Your task to perform on an android device: Open Chrome and go to the settings page Image 0: 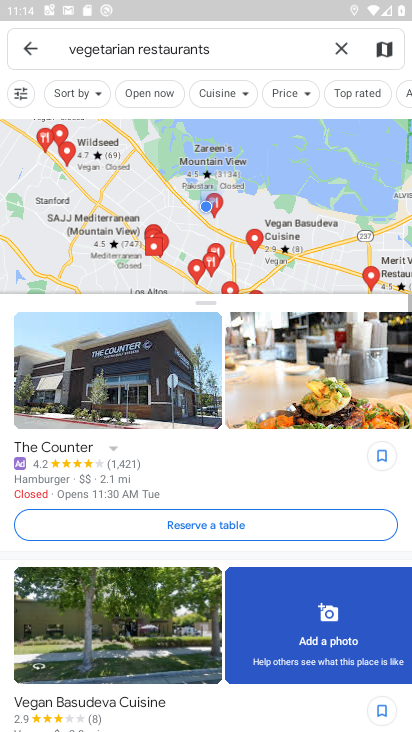
Step 0: press home button
Your task to perform on an android device: Open Chrome and go to the settings page Image 1: 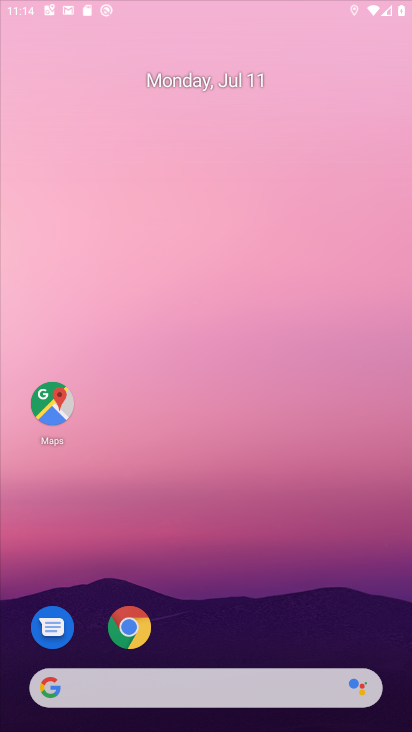
Step 1: drag from (271, 160) to (279, 91)
Your task to perform on an android device: Open Chrome and go to the settings page Image 2: 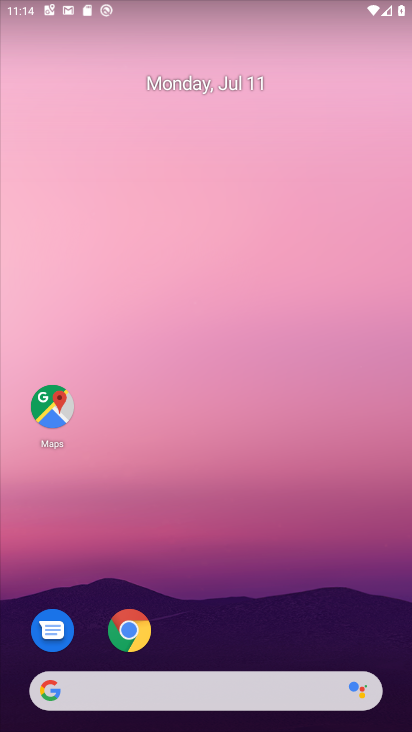
Step 2: click (130, 640)
Your task to perform on an android device: Open Chrome and go to the settings page Image 3: 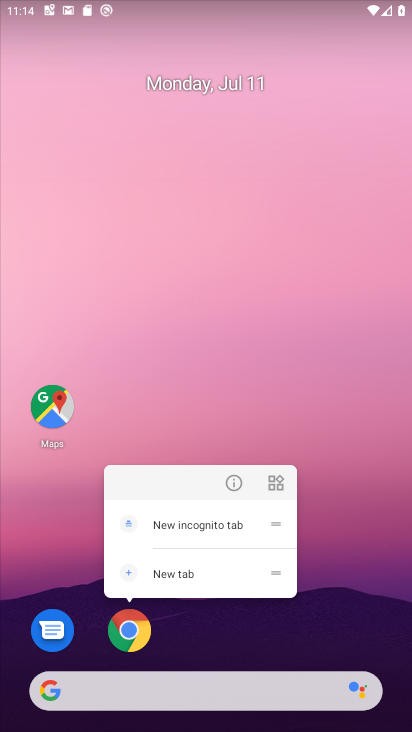
Step 3: click (149, 636)
Your task to perform on an android device: Open Chrome and go to the settings page Image 4: 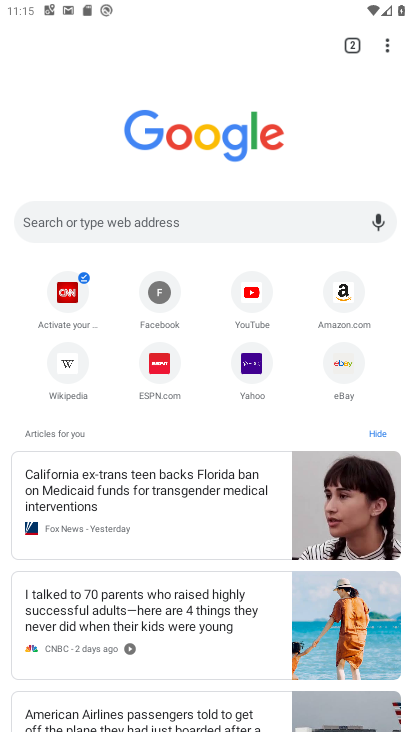
Step 4: click (379, 62)
Your task to perform on an android device: Open Chrome and go to the settings page Image 5: 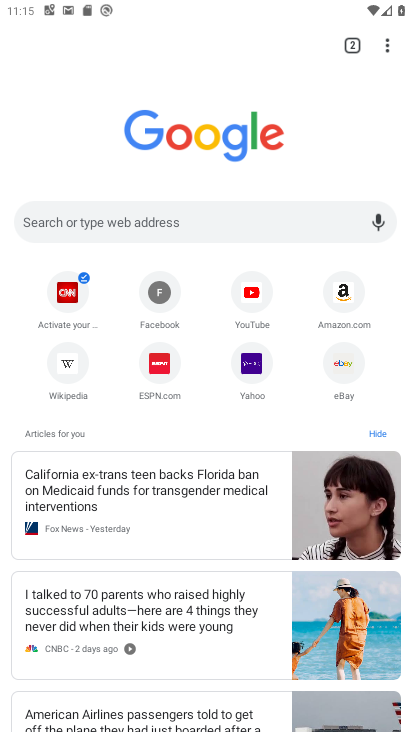
Step 5: click (389, 50)
Your task to perform on an android device: Open Chrome and go to the settings page Image 6: 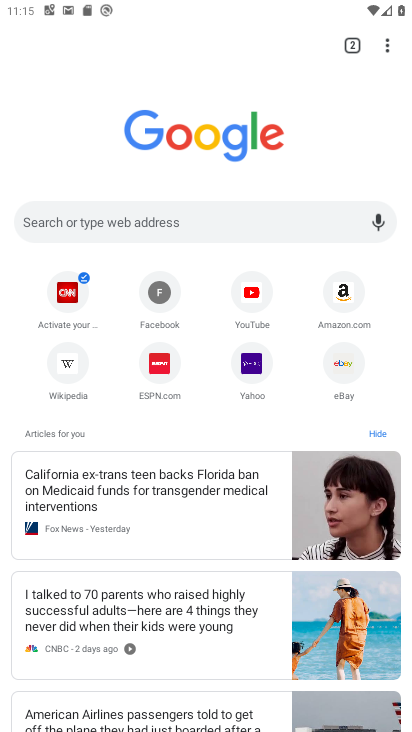
Step 6: click (386, 51)
Your task to perform on an android device: Open Chrome and go to the settings page Image 7: 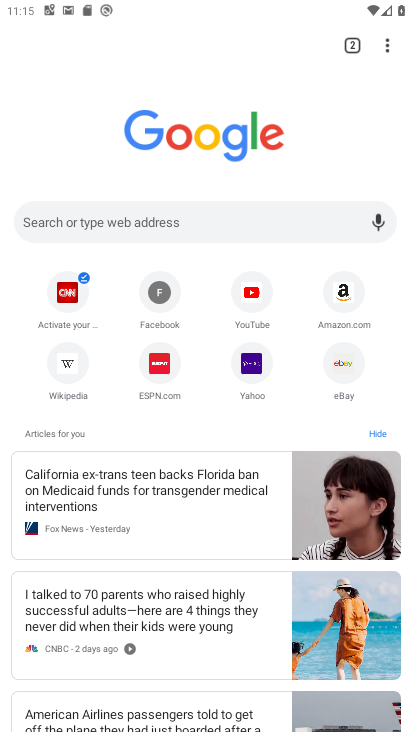
Step 7: click (388, 53)
Your task to perform on an android device: Open Chrome and go to the settings page Image 8: 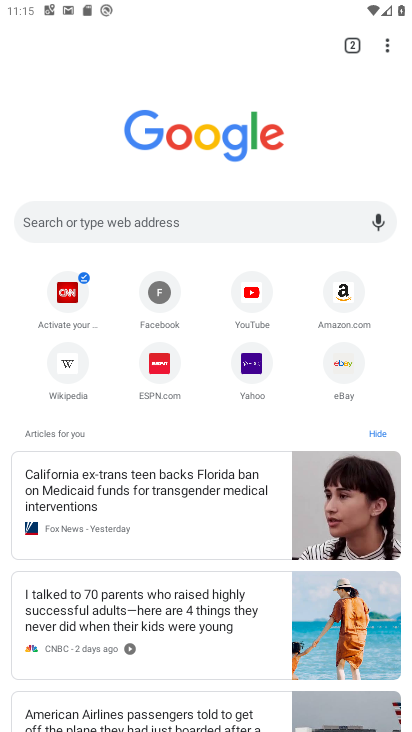
Step 8: click (388, 50)
Your task to perform on an android device: Open Chrome and go to the settings page Image 9: 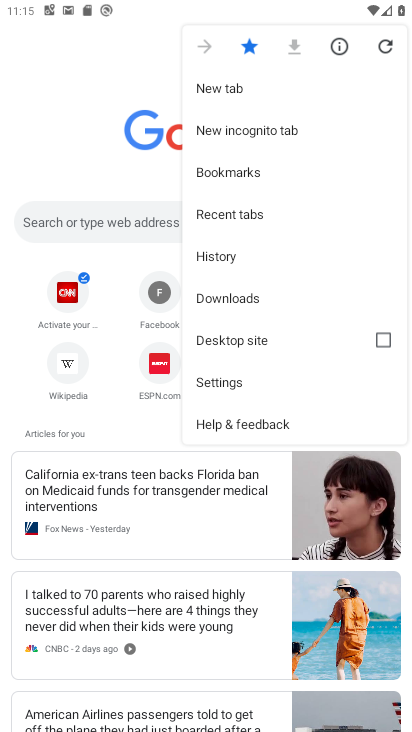
Step 9: click (245, 382)
Your task to perform on an android device: Open Chrome and go to the settings page Image 10: 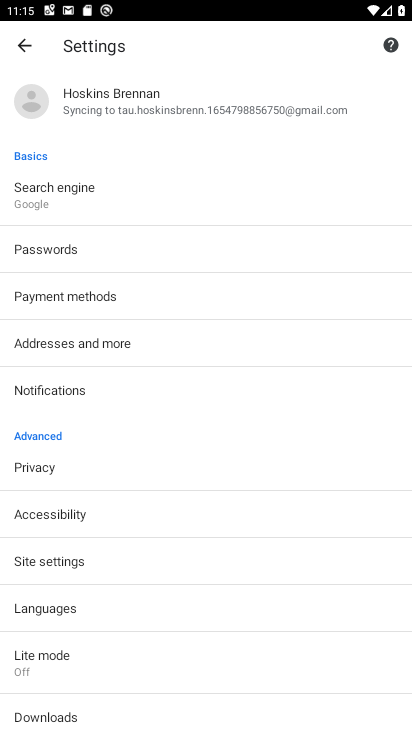
Step 10: task complete